Your task to perform on an android device: Open Yahoo.com Image 0: 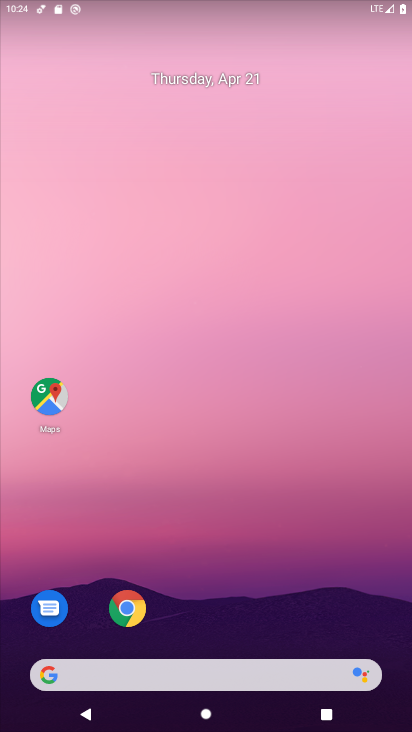
Step 0: click (138, 613)
Your task to perform on an android device: Open Yahoo.com Image 1: 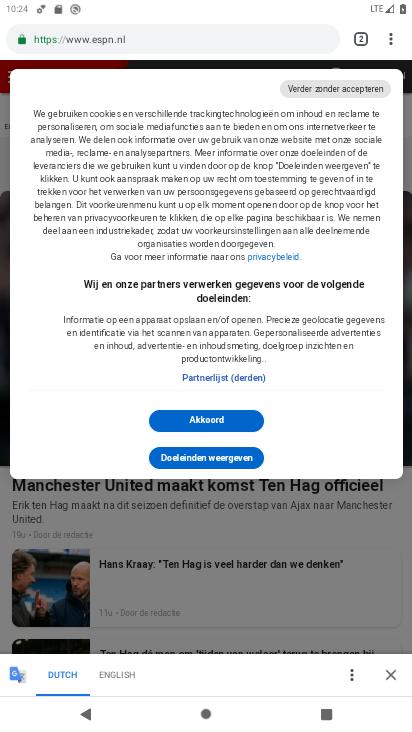
Step 1: click (359, 36)
Your task to perform on an android device: Open Yahoo.com Image 2: 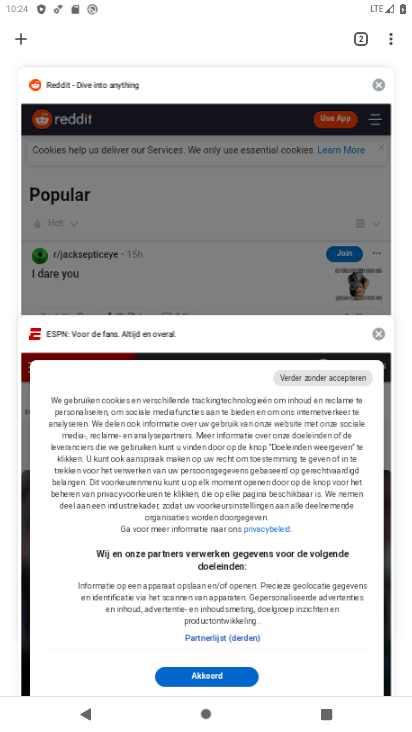
Step 2: click (27, 35)
Your task to perform on an android device: Open Yahoo.com Image 3: 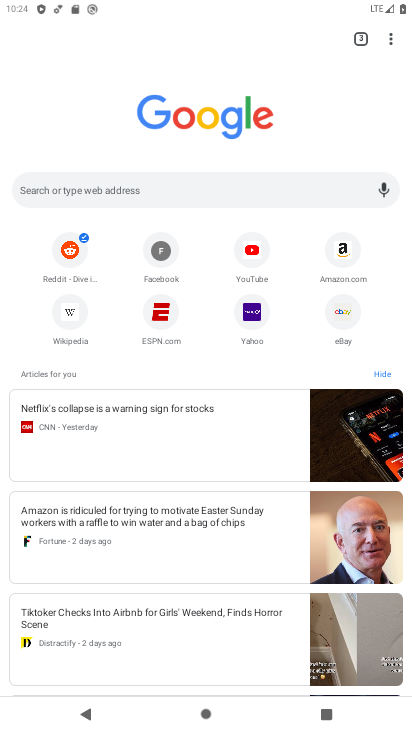
Step 3: click (254, 323)
Your task to perform on an android device: Open Yahoo.com Image 4: 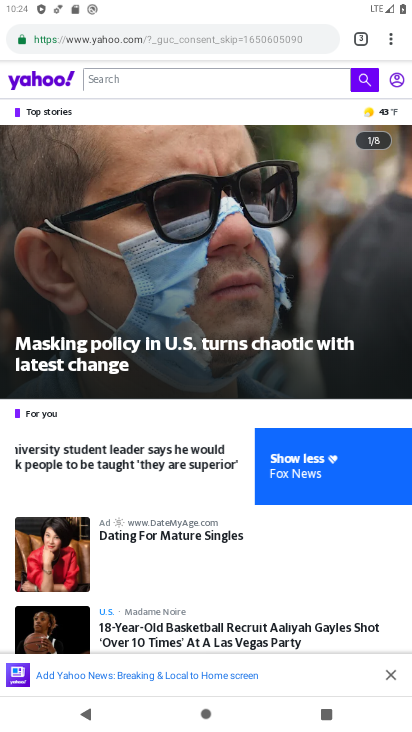
Step 4: task complete